Your task to perform on an android device: delete location history Image 0: 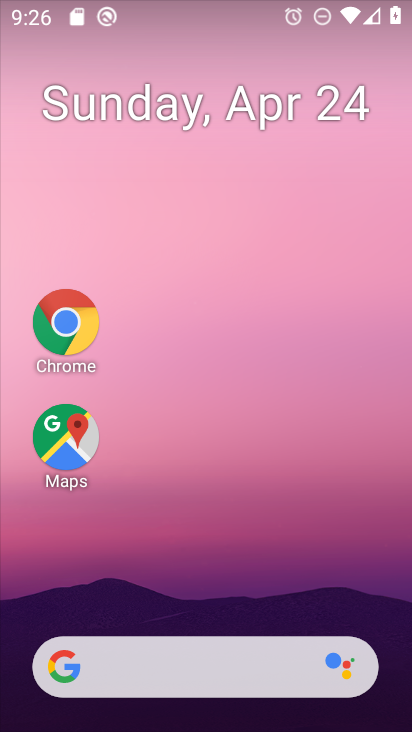
Step 0: click (50, 431)
Your task to perform on an android device: delete location history Image 1: 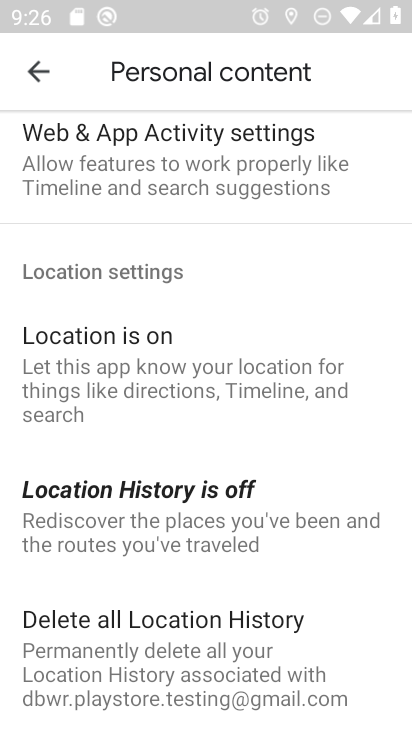
Step 1: click (188, 621)
Your task to perform on an android device: delete location history Image 2: 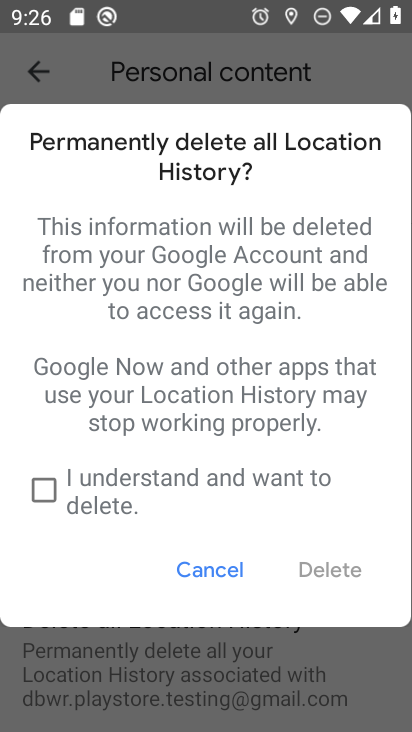
Step 2: click (43, 485)
Your task to perform on an android device: delete location history Image 3: 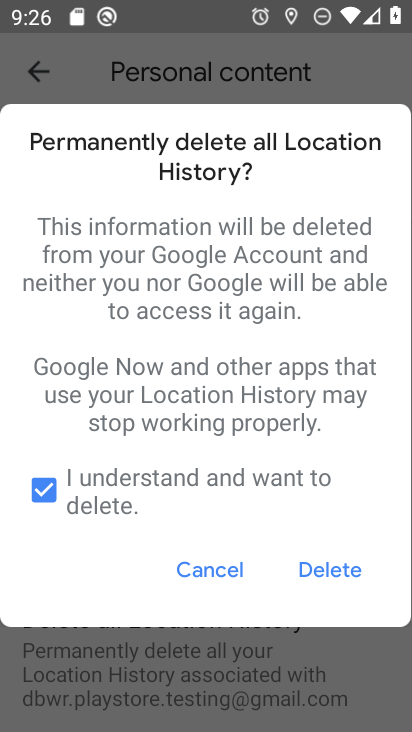
Step 3: click (326, 562)
Your task to perform on an android device: delete location history Image 4: 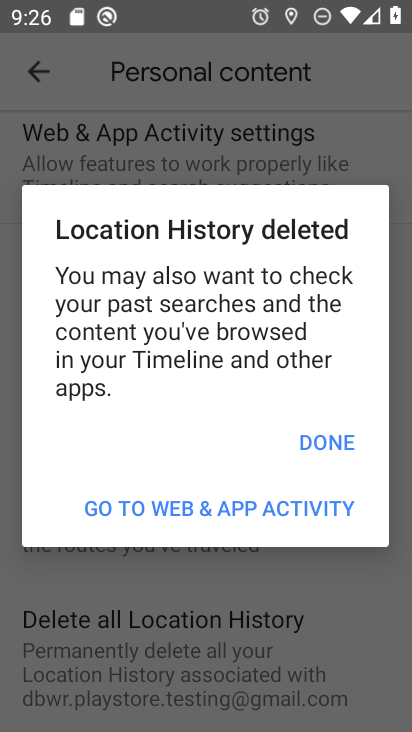
Step 4: click (314, 438)
Your task to perform on an android device: delete location history Image 5: 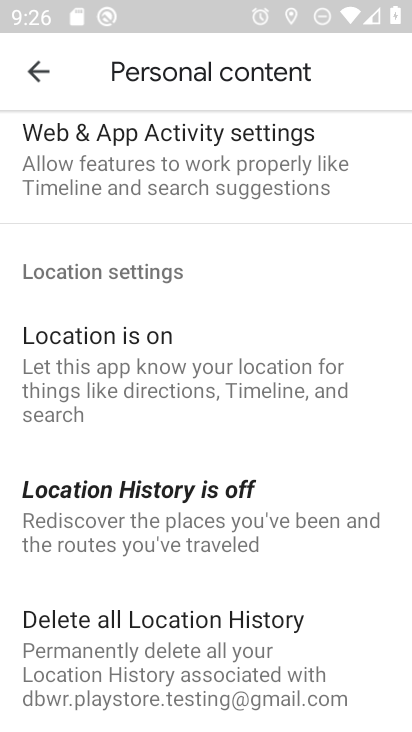
Step 5: task complete